Your task to perform on an android device: turn notification dots off Image 0: 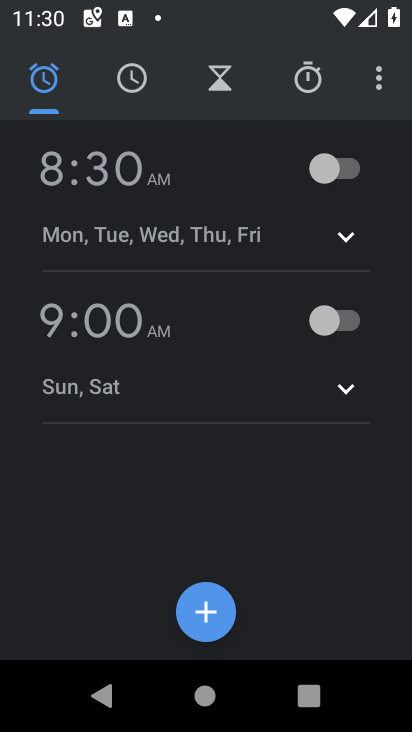
Step 0: press home button
Your task to perform on an android device: turn notification dots off Image 1: 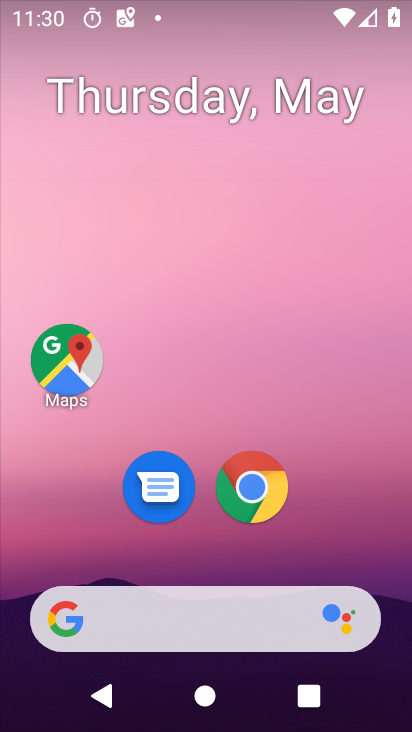
Step 1: drag from (288, 563) to (333, 253)
Your task to perform on an android device: turn notification dots off Image 2: 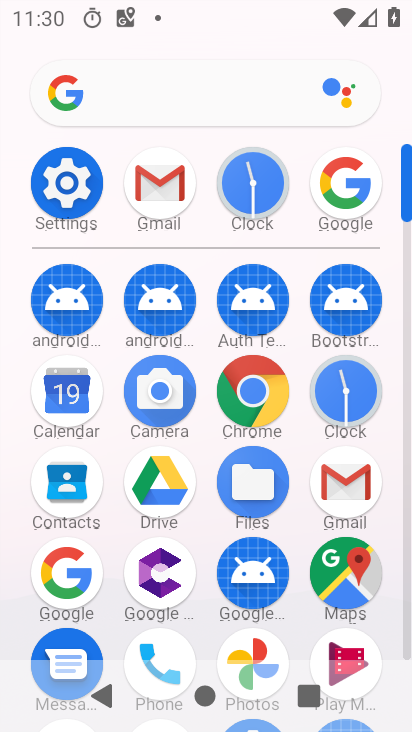
Step 2: click (54, 181)
Your task to perform on an android device: turn notification dots off Image 3: 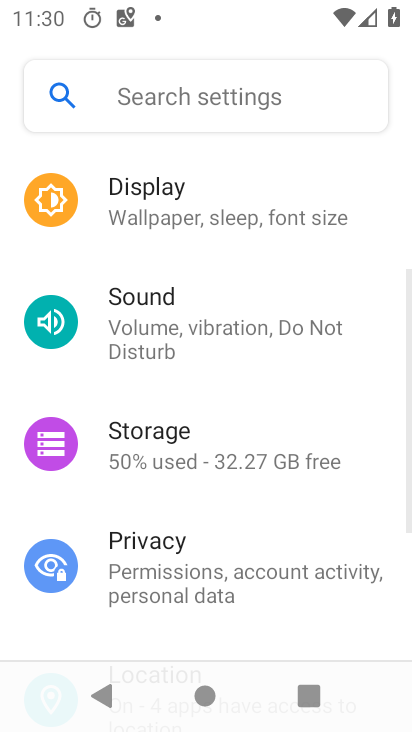
Step 3: drag from (310, 289) to (310, 226)
Your task to perform on an android device: turn notification dots off Image 4: 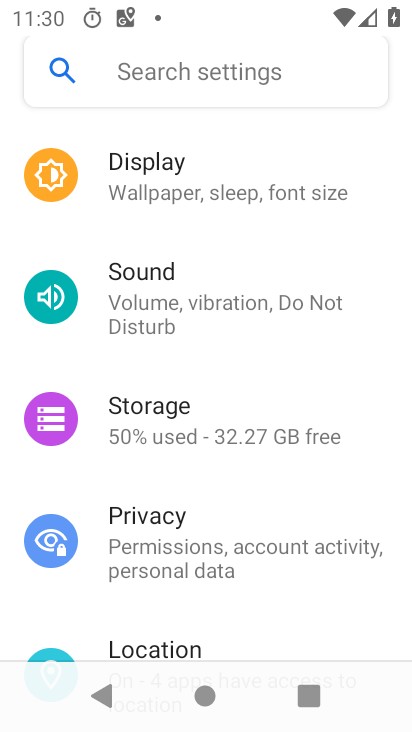
Step 4: drag from (306, 218) to (335, 594)
Your task to perform on an android device: turn notification dots off Image 5: 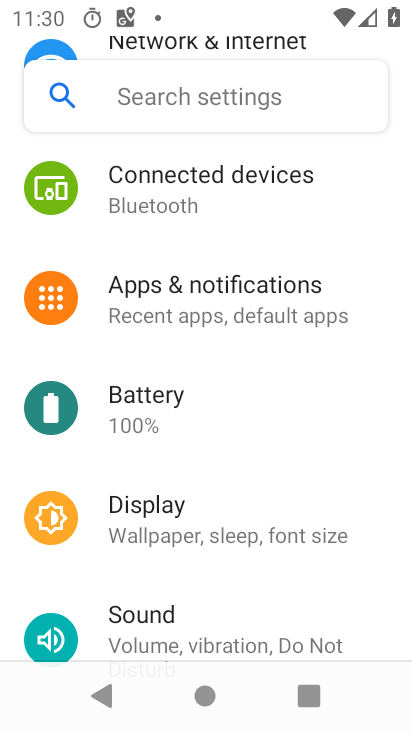
Step 5: click (210, 308)
Your task to perform on an android device: turn notification dots off Image 6: 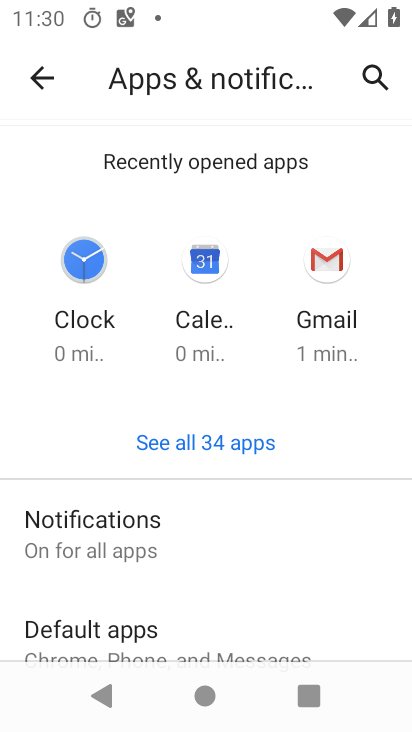
Step 6: click (132, 544)
Your task to perform on an android device: turn notification dots off Image 7: 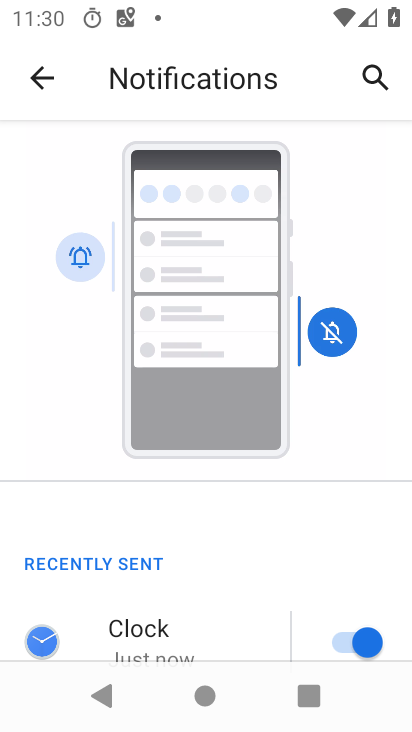
Step 7: drag from (249, 592) to (247, 160)
Your task to perform on an android device: turn notification dots off Image 8: 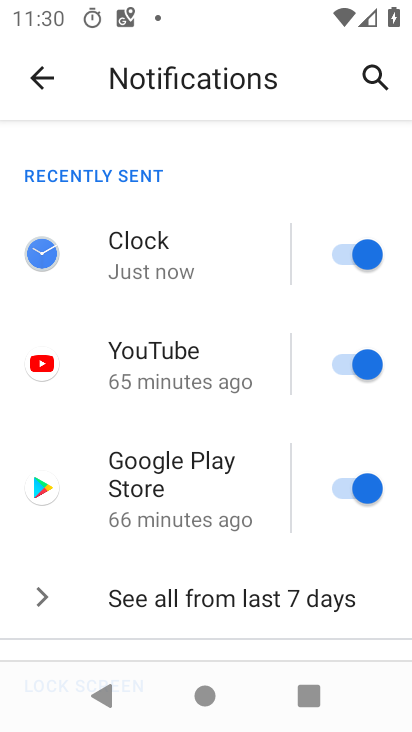
Step 8: drag from (233, 560) to (229, 238)
Your task to perform on an android device: turn notification dots off Image 9: 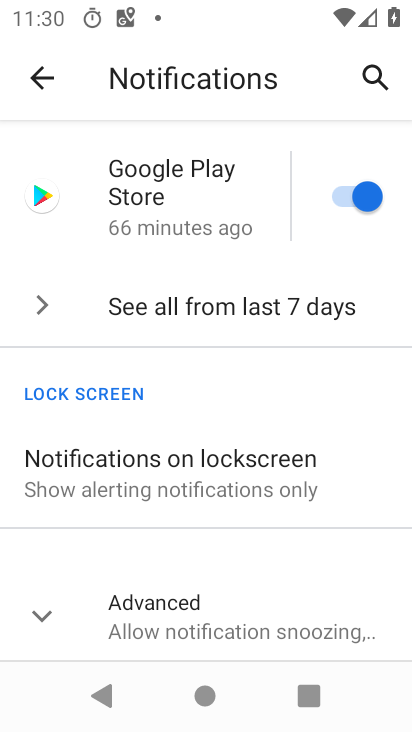
Step 9: click (239, 611)
Your task to perform on an android device: turn notification dots off Image 10: 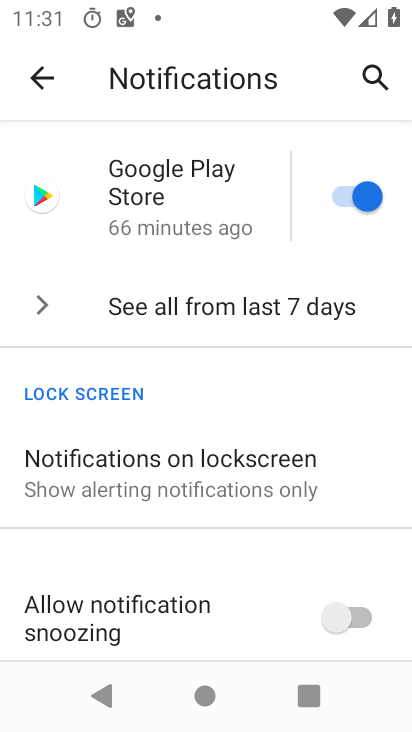
Step 10: drag from (242, 613) to (259, 299)
Your task to perform on an android device: turn notification dots off Image 11: 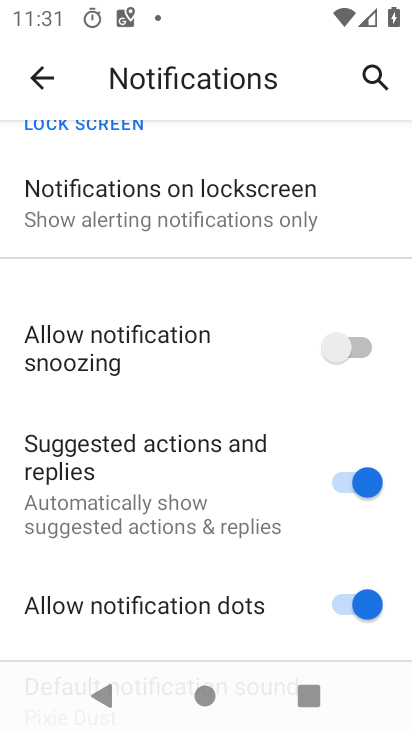
Step 11: click (338, 605)
Your task to perform on an android device: turn notification dots off Image 12: 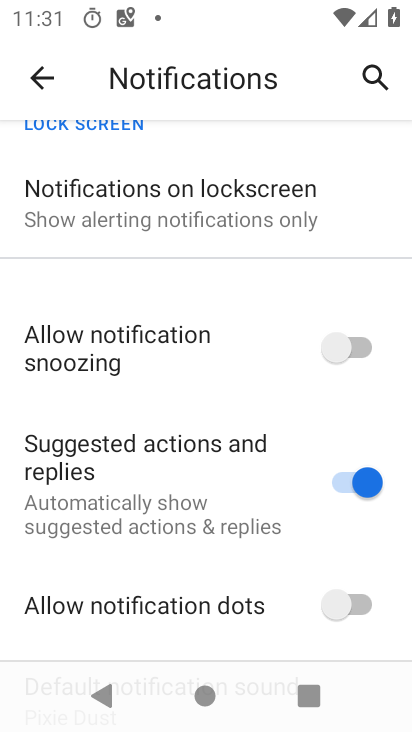
Step 12: task complete